Your task to perform on an android device: turn on location history Image 0: 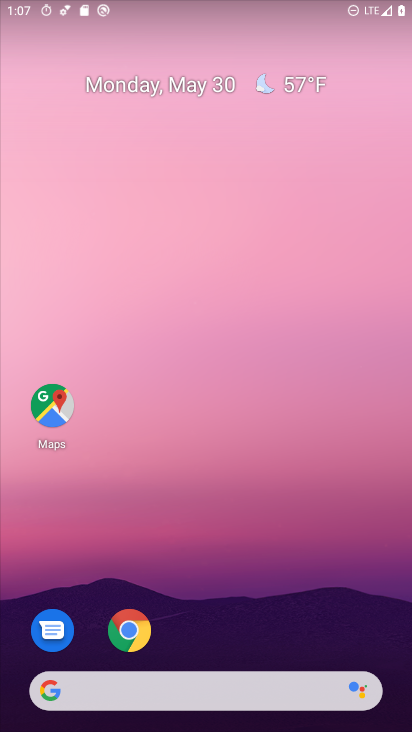
Step 0: drag from (339, 709) to (333, 151)
Your task to perform on an android device: turn on location history Image 1: 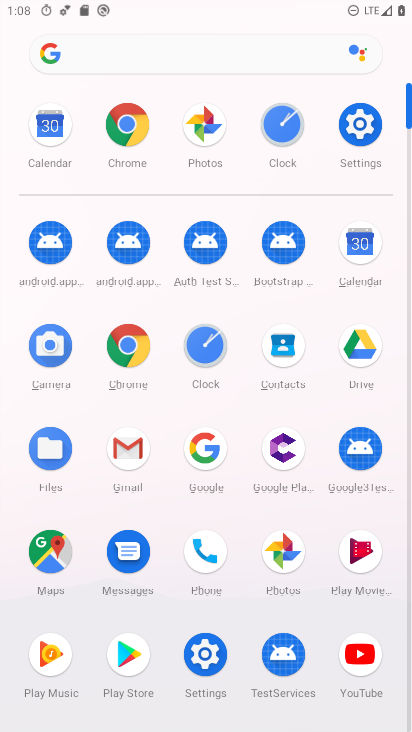
Step 1: click (359, 136)
Your task to perform on an android device: turn on location history Image 2: 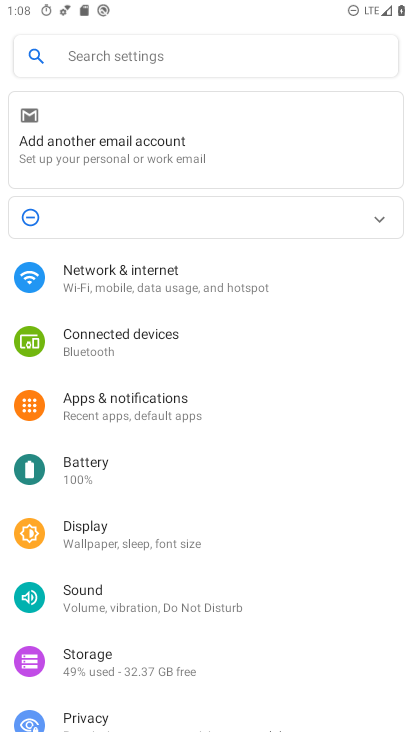
Step 2: click (128, 56)
Your task to perform on an android device: turn on location history Image 3: 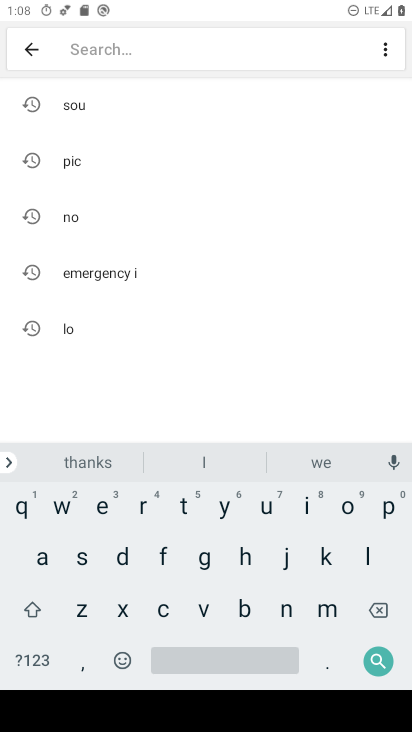
Step 3: click (356, 557)
Your task to perform on an android device: turn on location history Image 4: 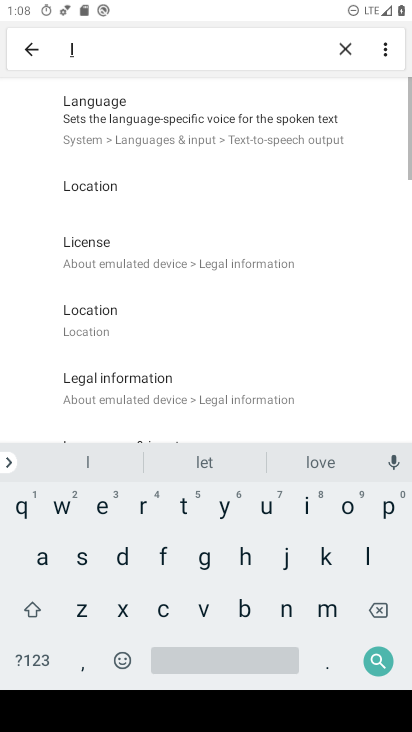
Step 4: click (343, 510)
Your task to perform on an android device: turn on location history Image 5: 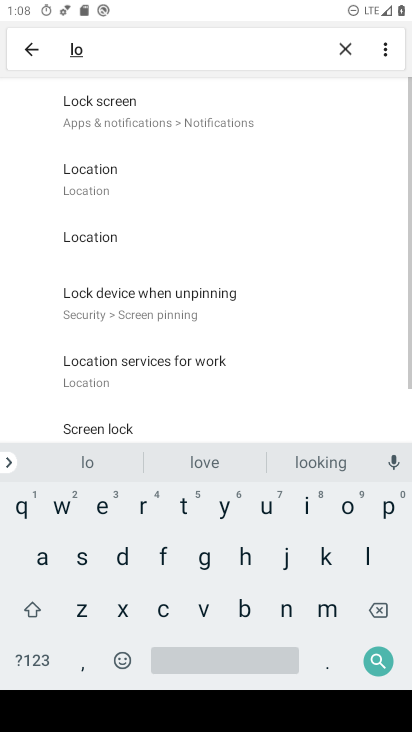
Step 5: click (121, 165)
Your task to perform on an android device: turn on location history Image 6: 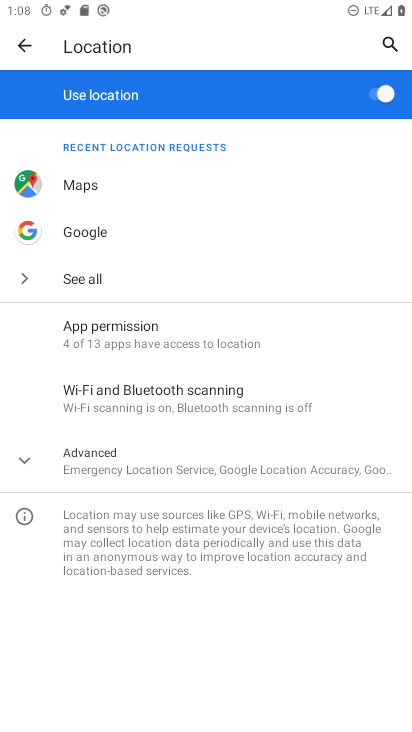
Step 6: click (113, 468)
Your task to perform on an android device: turn on location history Image 7: 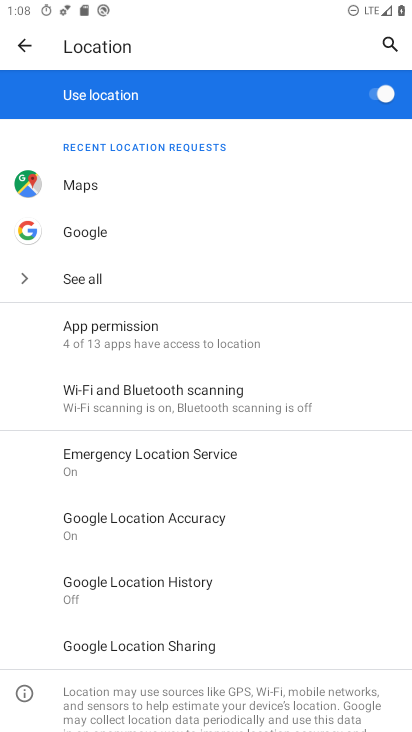
Step 7: click (181, 580)
Your task to perform on an android device: turn on location history Image 8: 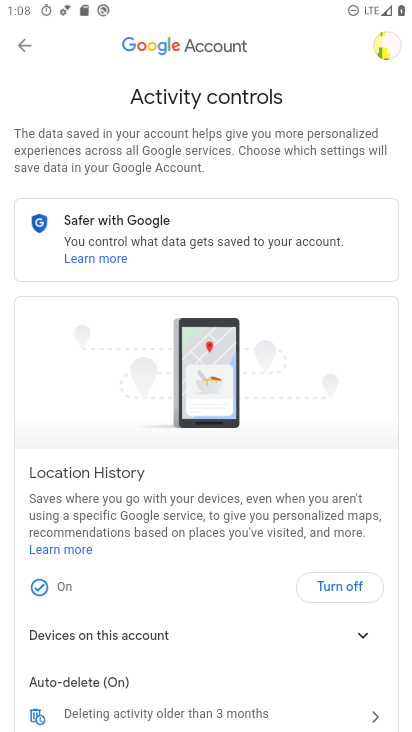
Step 8: task complete